Your task to perform on an android device: Add duracell triple a to the cart on costco Image 0: 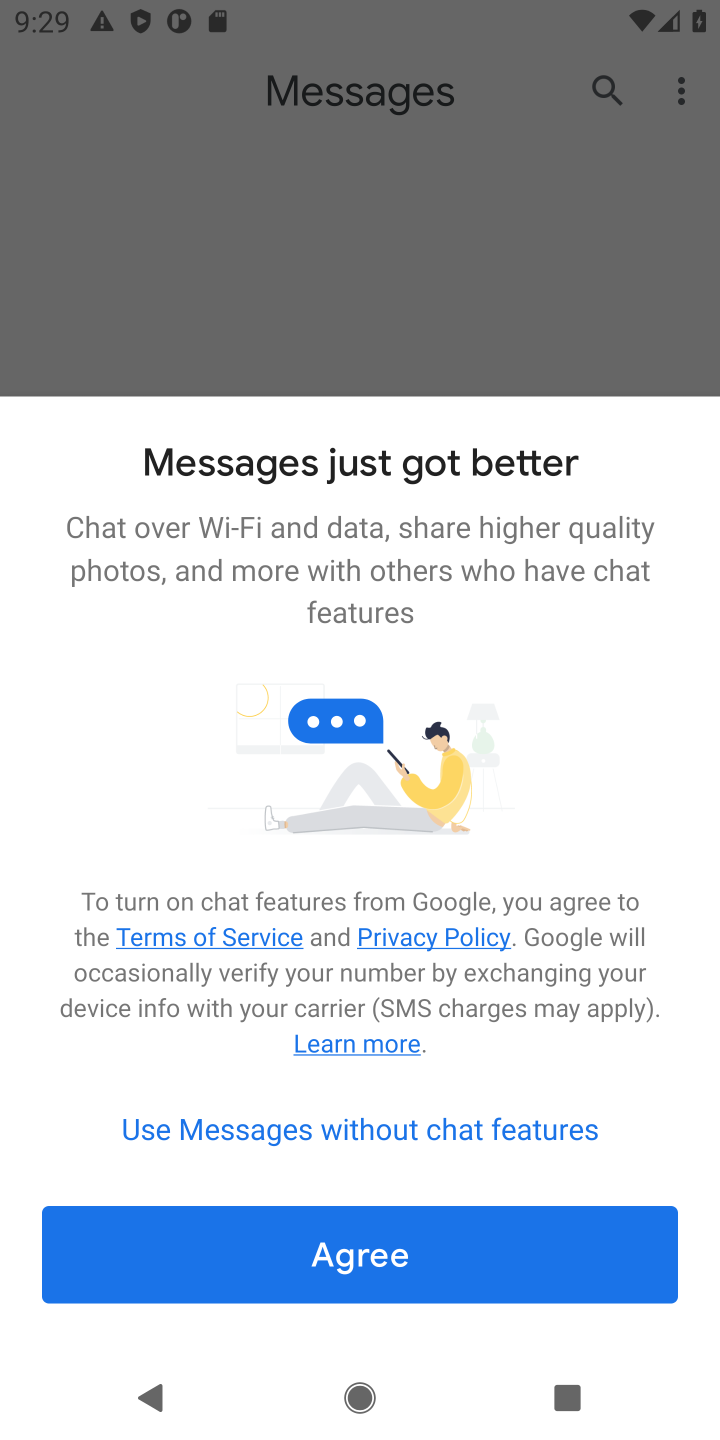
Step 0: press home button
Your task to perform on an android device: Add duracell triple a to the cart on costco Image 1: 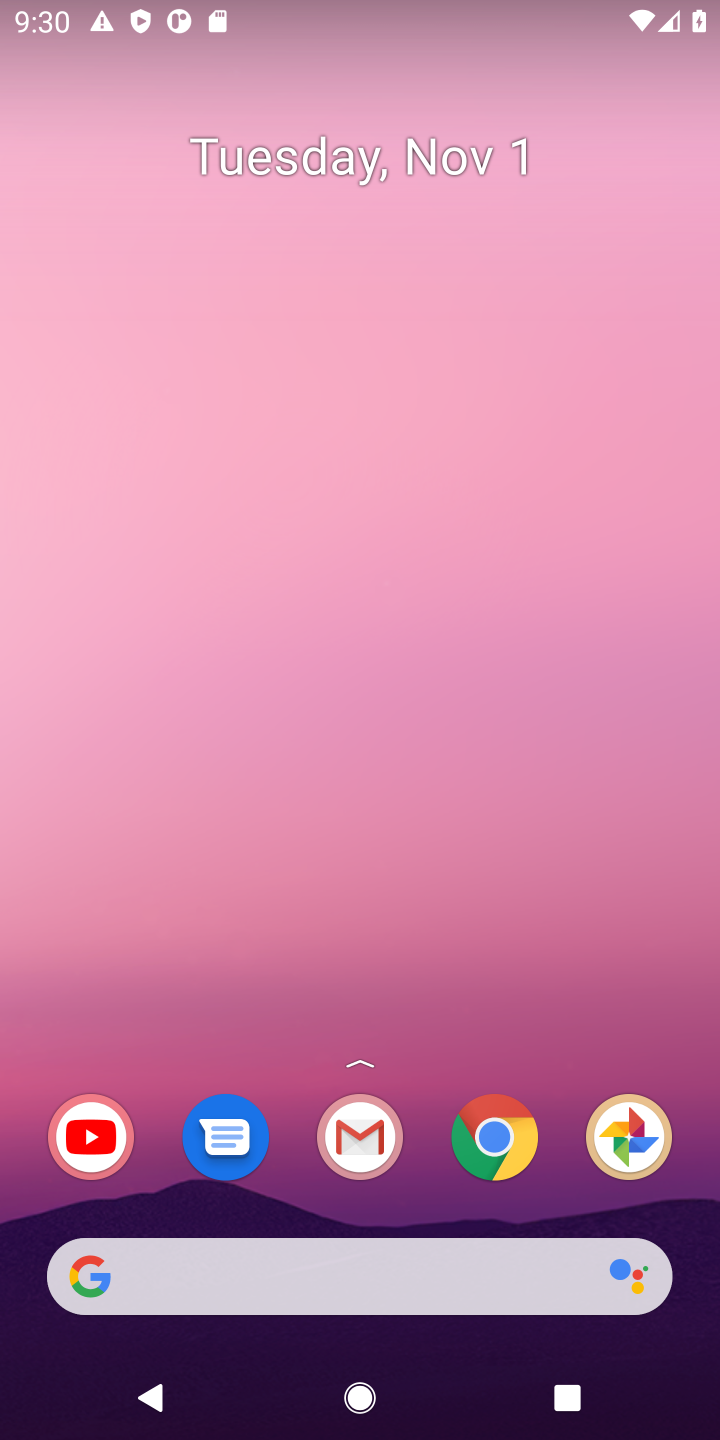
Step 1: click (519, 1143)
Your task to perform on an android device: Add duracell triple a to the cart on costco Image 2: 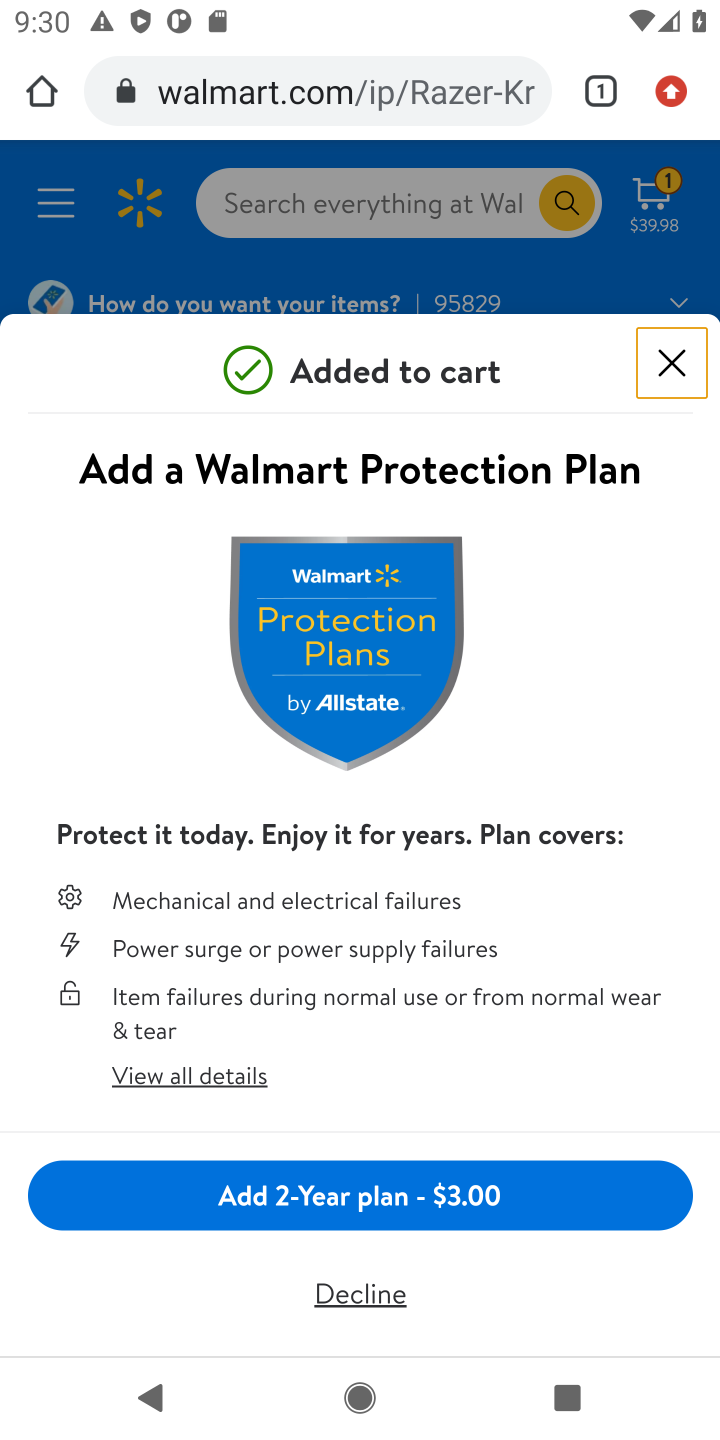
Step 2: click (429, 69)
Your task to perform on an android device: Add duracell triple a to the cart on costco Image 3: 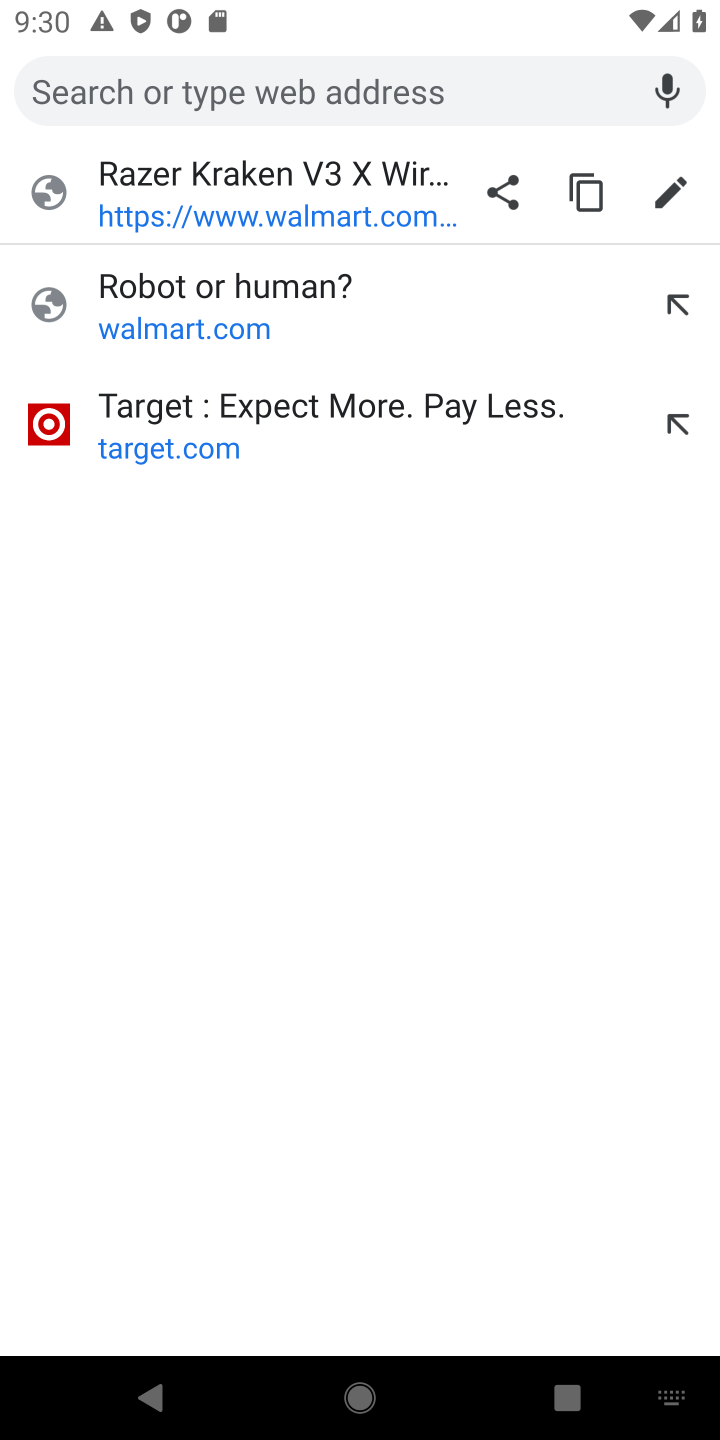
Step 3: type "costco"
Your task to perform on an android device: Add duracell triple a to the cart on costco Image 4: 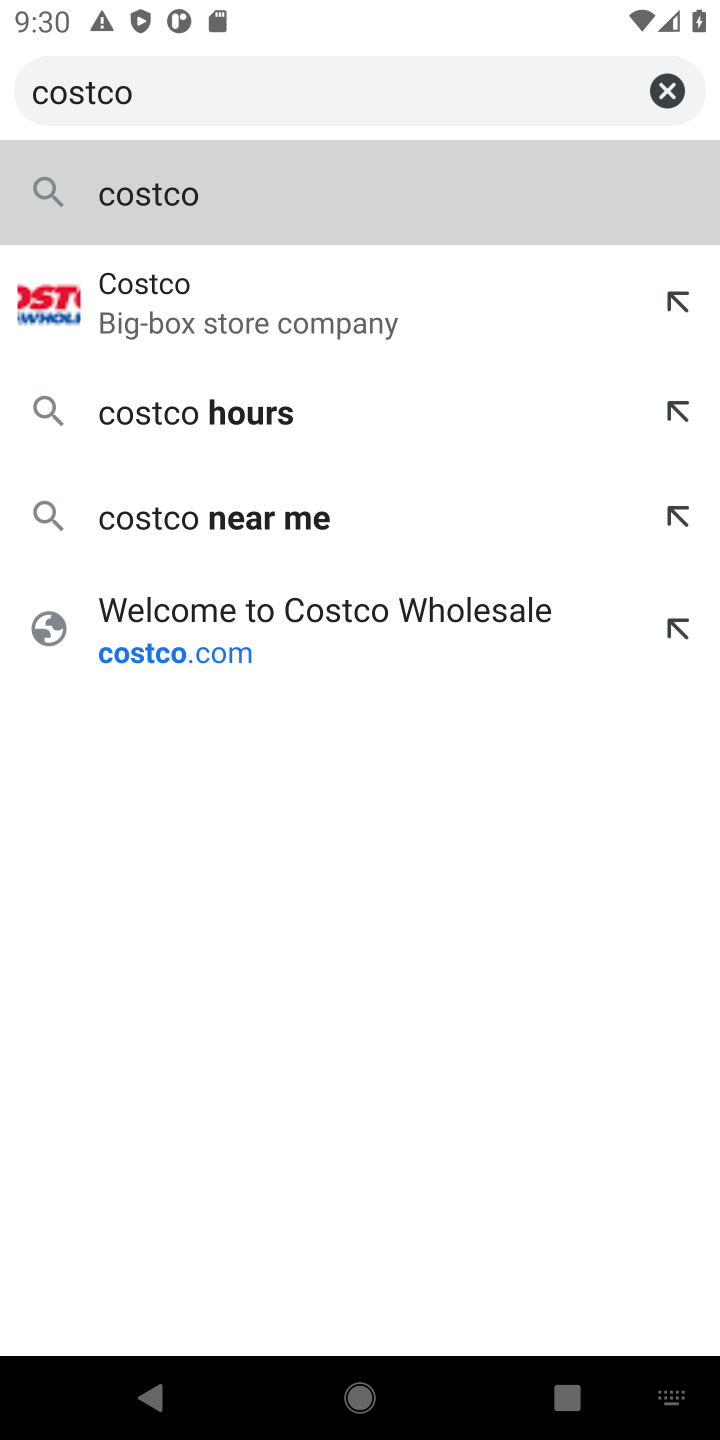
Step 4: click (203, 306)
Your task to perform on an android device: Add duracell triple a to the cart on costco Image 5: 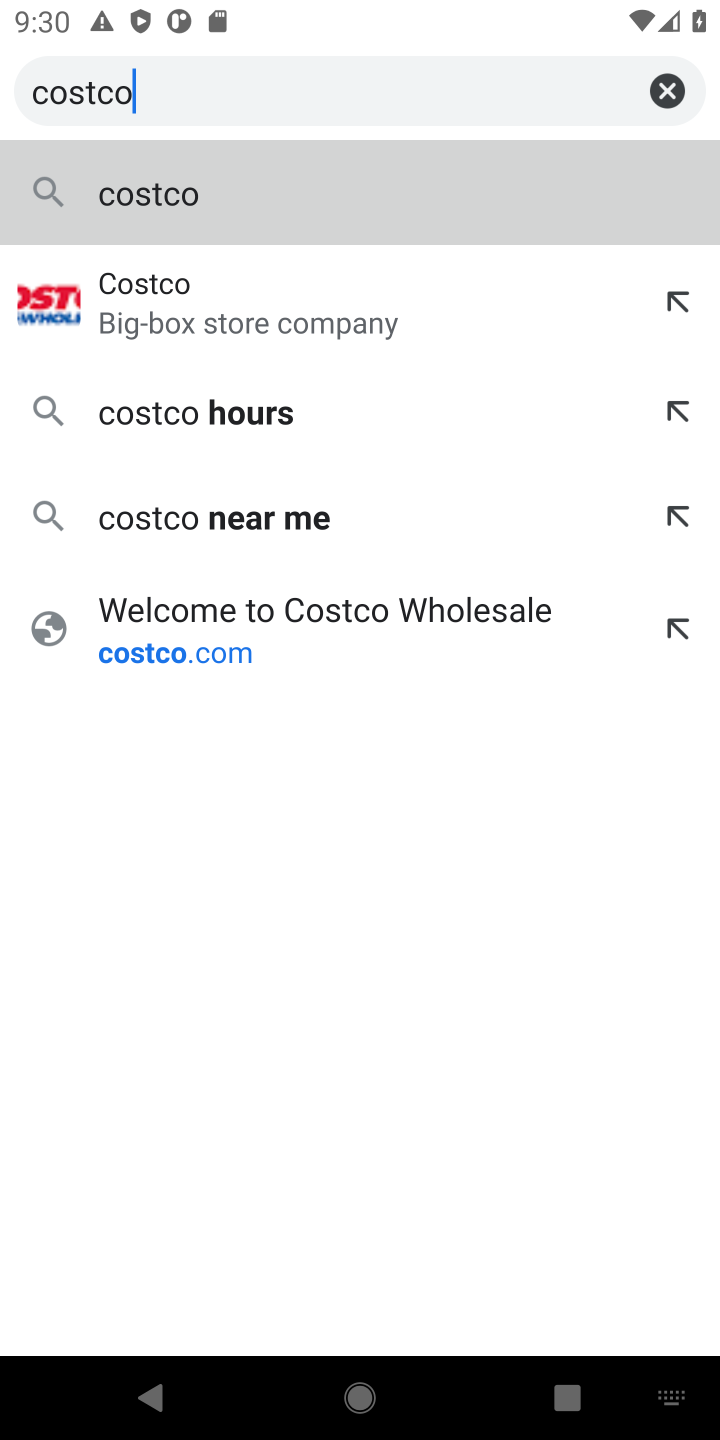
Step 5: click (146, 301)
Your task to perform on an android device: Add duracell triple a to the cart on costco Image 6: 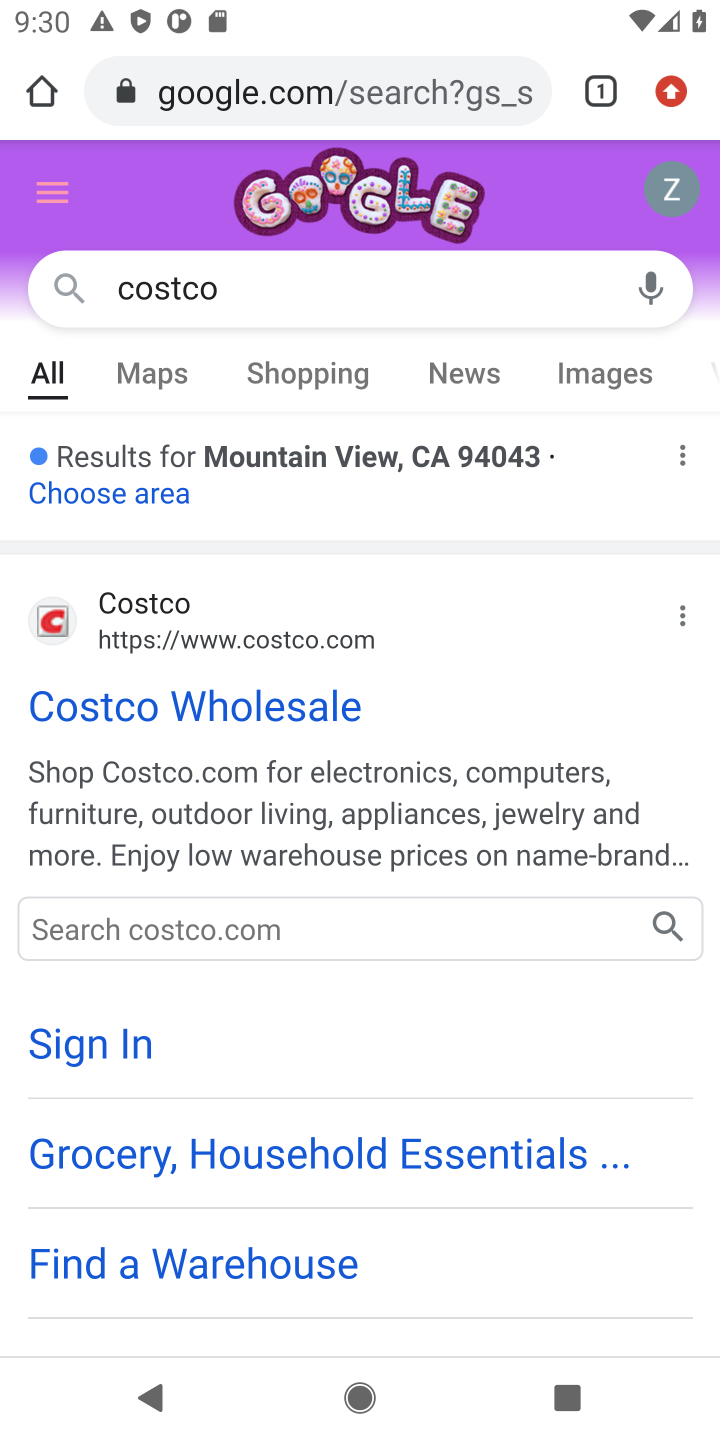
Step 6: click (143, 640)
Your task to perform on an android device: Add duracell triple a to the cart on costco Image 7: 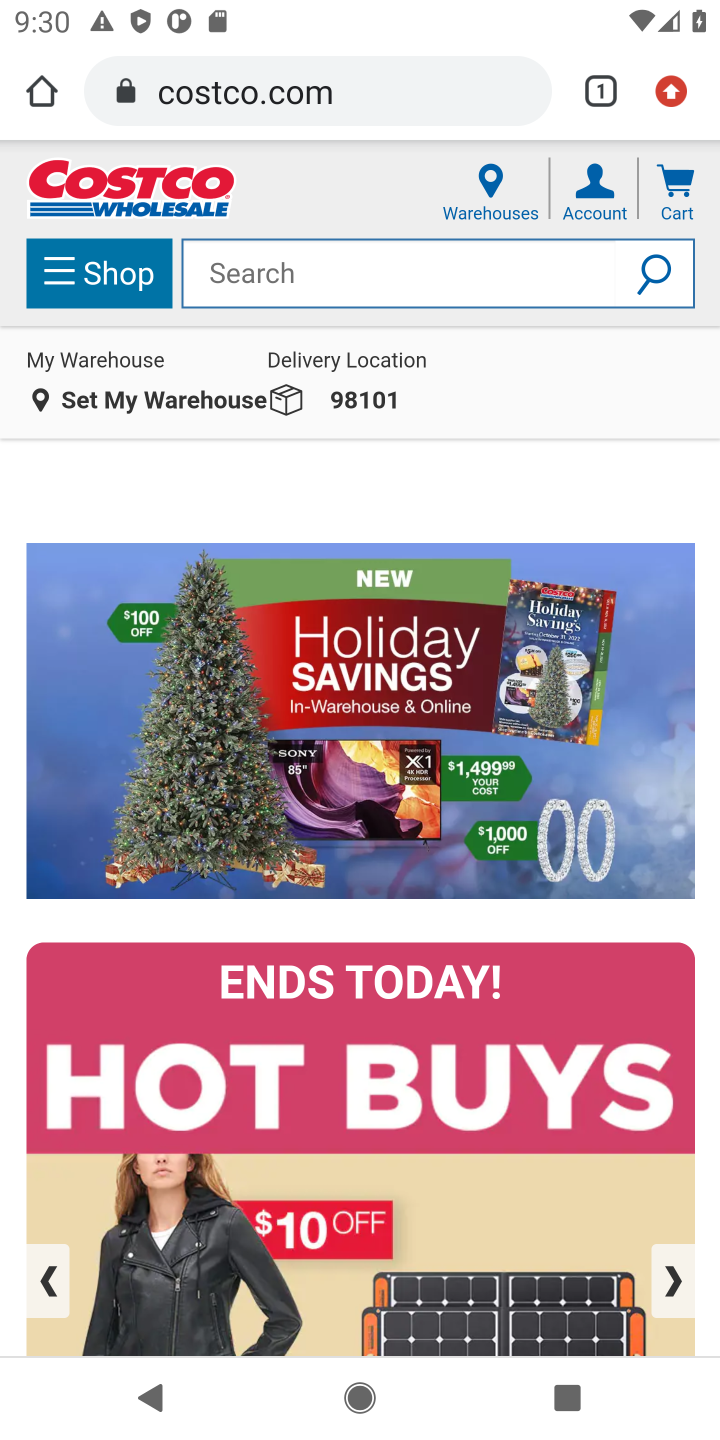
Step 7: click (447, 269)
Your task to perform on an android device: Add duracell triple a to the cart on costco Image 8: 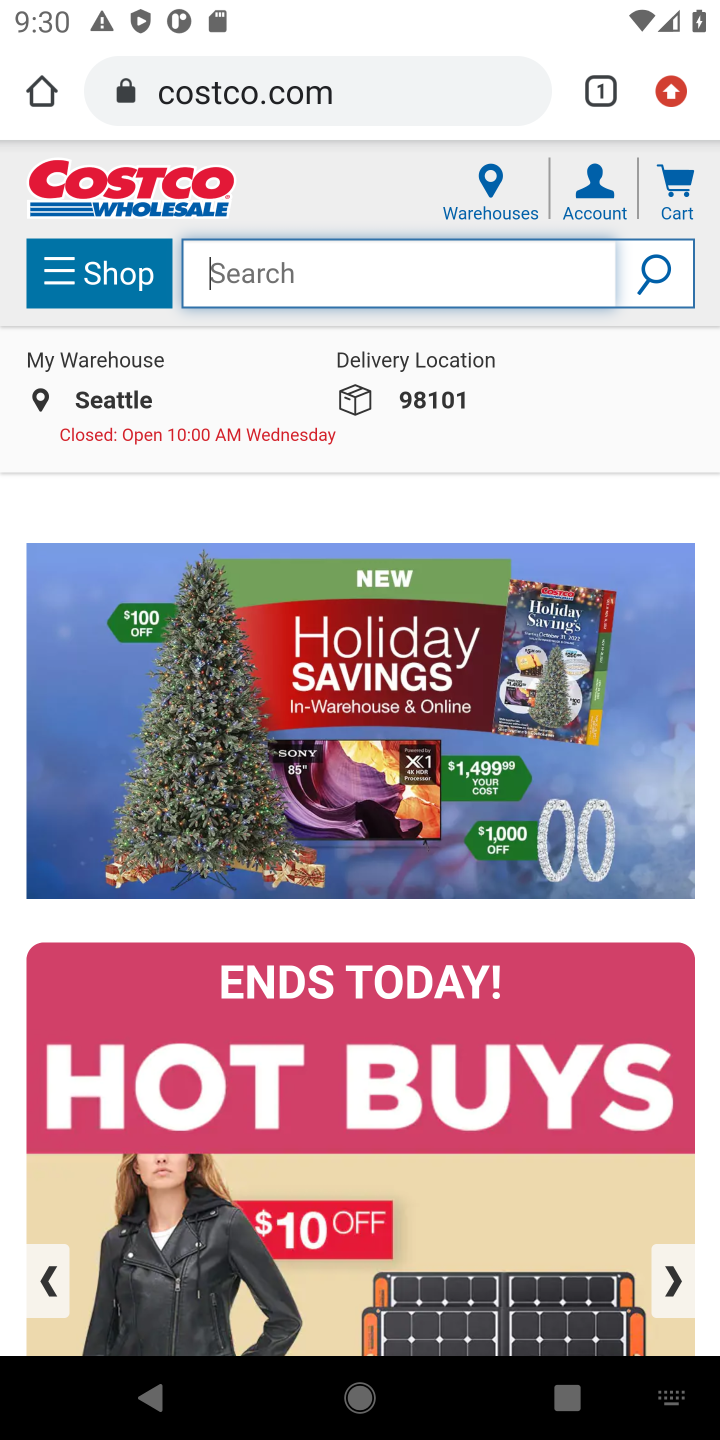
Step 8: type "duracell triple a"
Your task to perform on an android device: Add duracell triple a to the cart on costco Image 9: 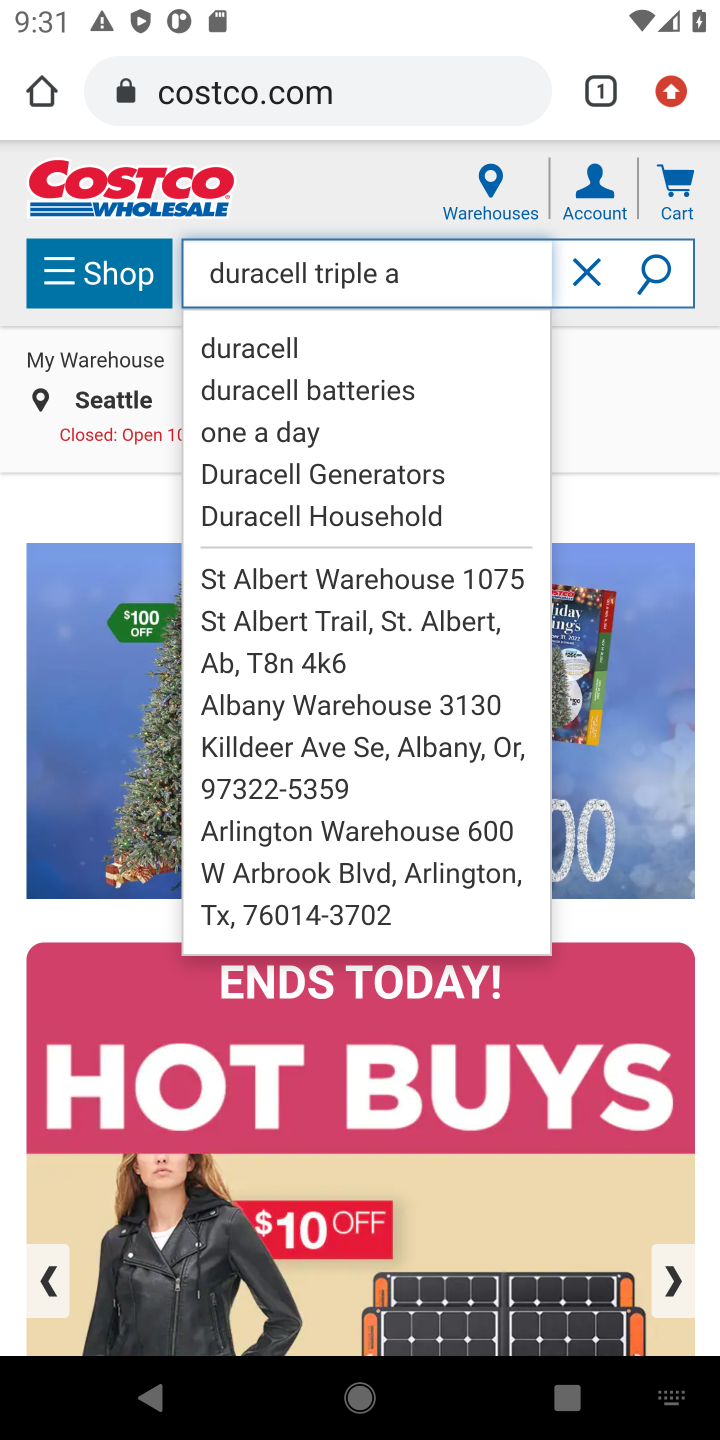
Step 9: click (610, 347)
Your task to perform on an android device: Add duracell triple a to the cart on costco Image 10: 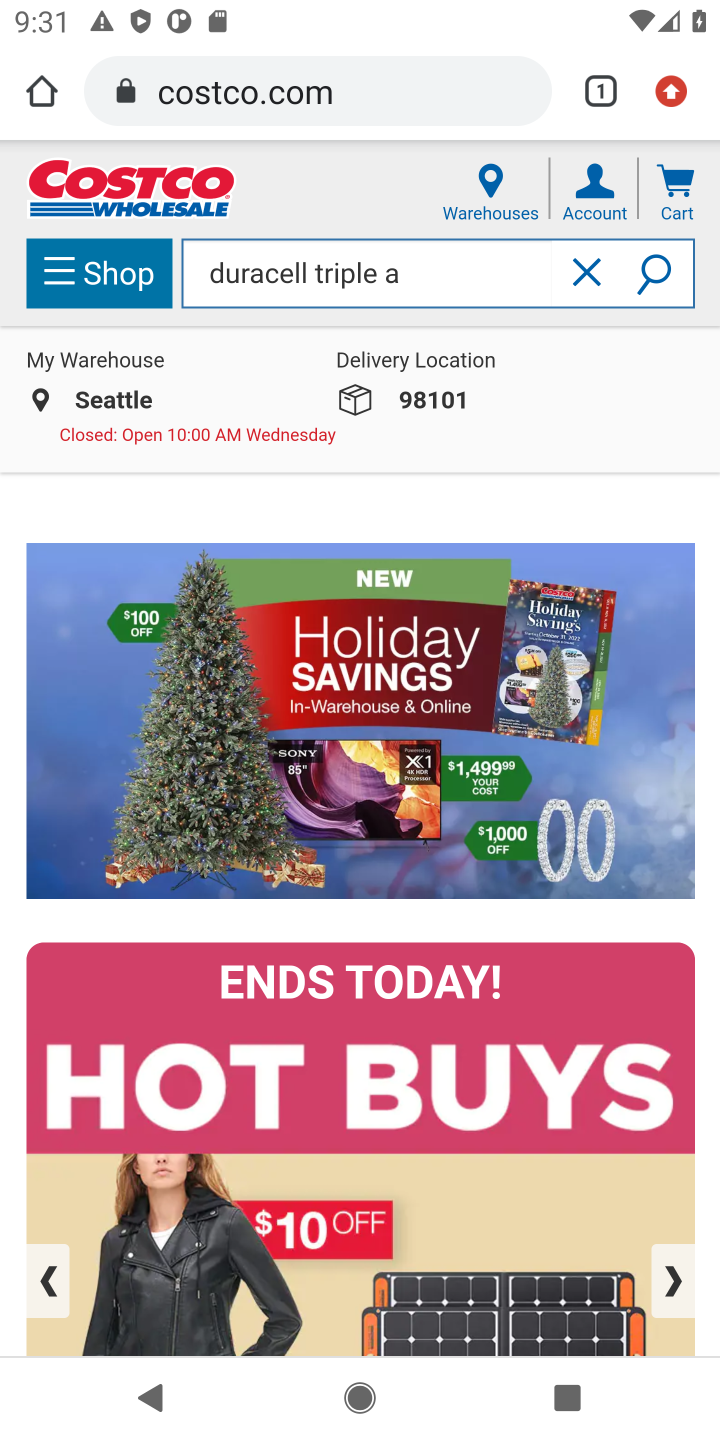
Step 10: click (445, 273)
Your task to perform on an android device: Add duracell triple a to the cart on costco Image 11: 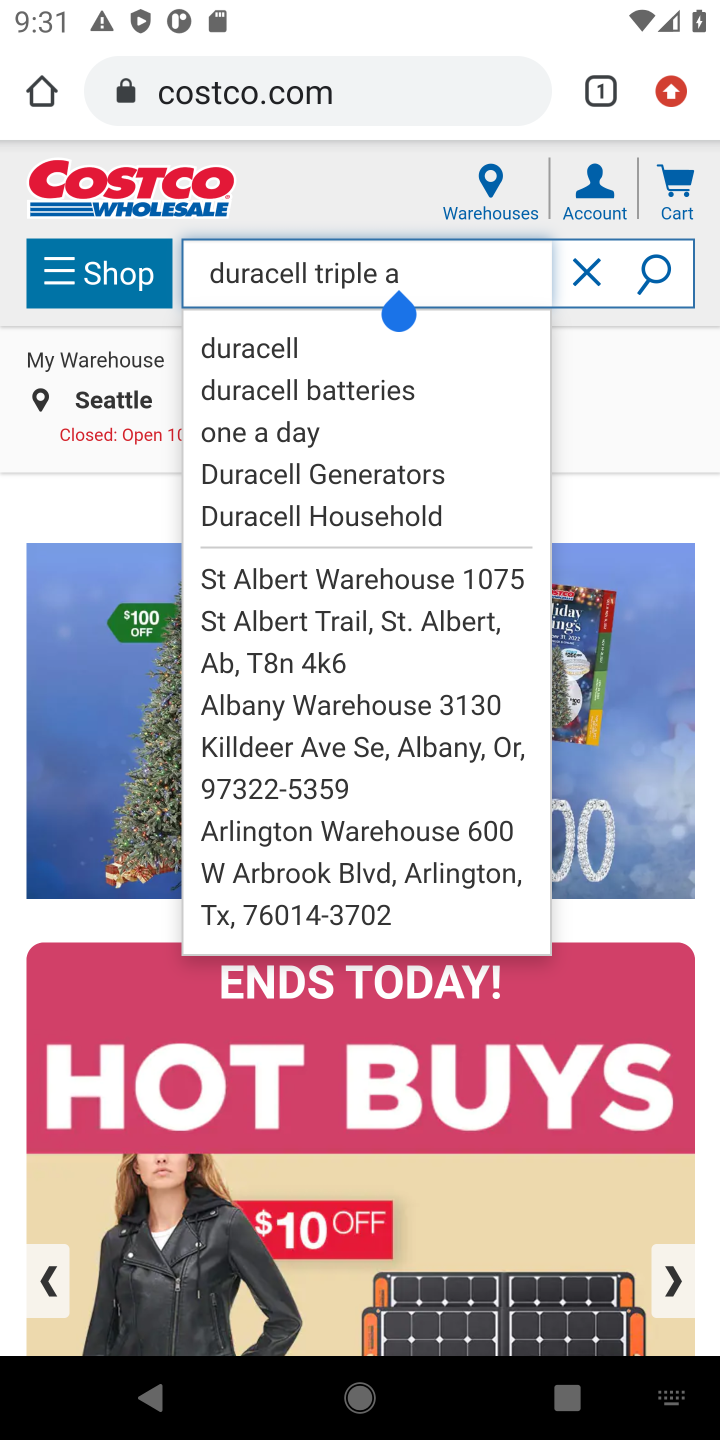
Step 11: click (330, 382)
Your task to perform on an android device: Add duracell triple a to the cart on costco Image 12: 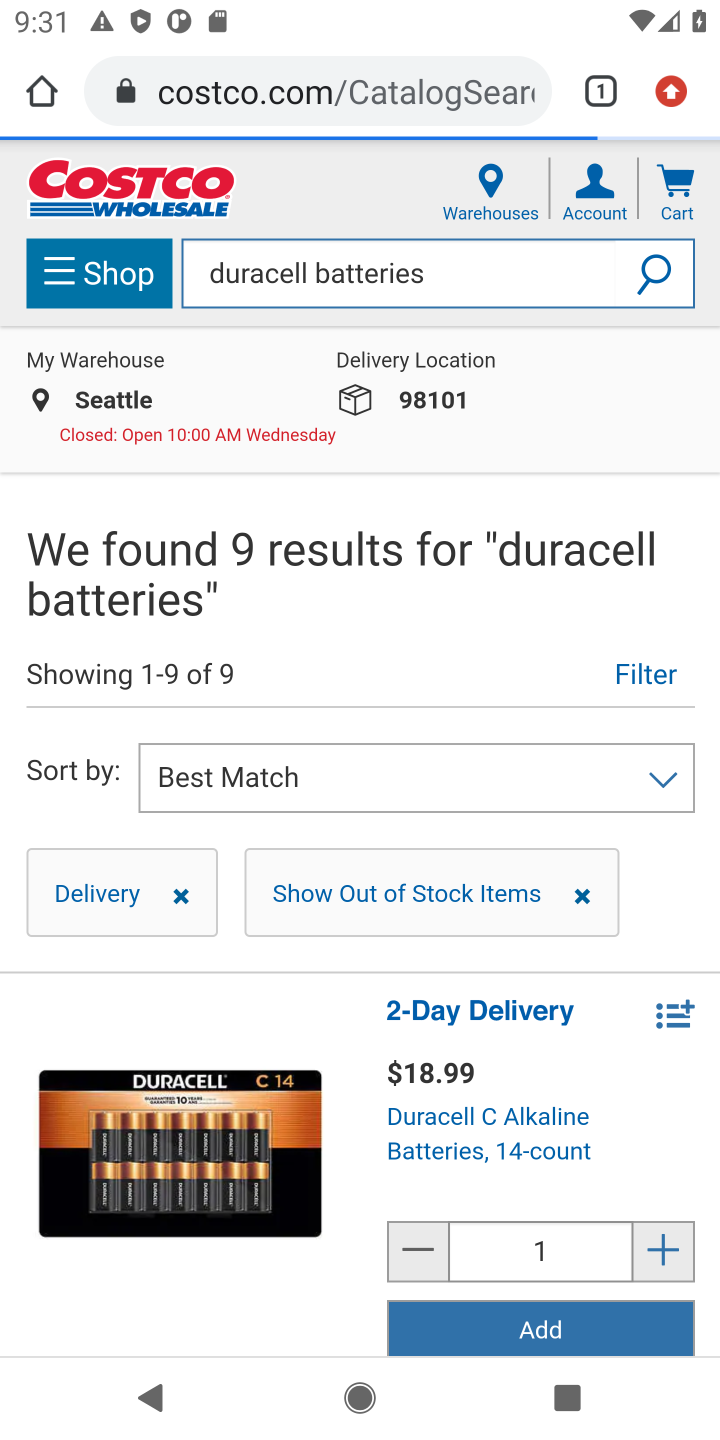
Step 12: drag from (442, 779) to (427, 487)
Your task to perform on an android device: Add duracell triple a to the cart on costco Image 13: 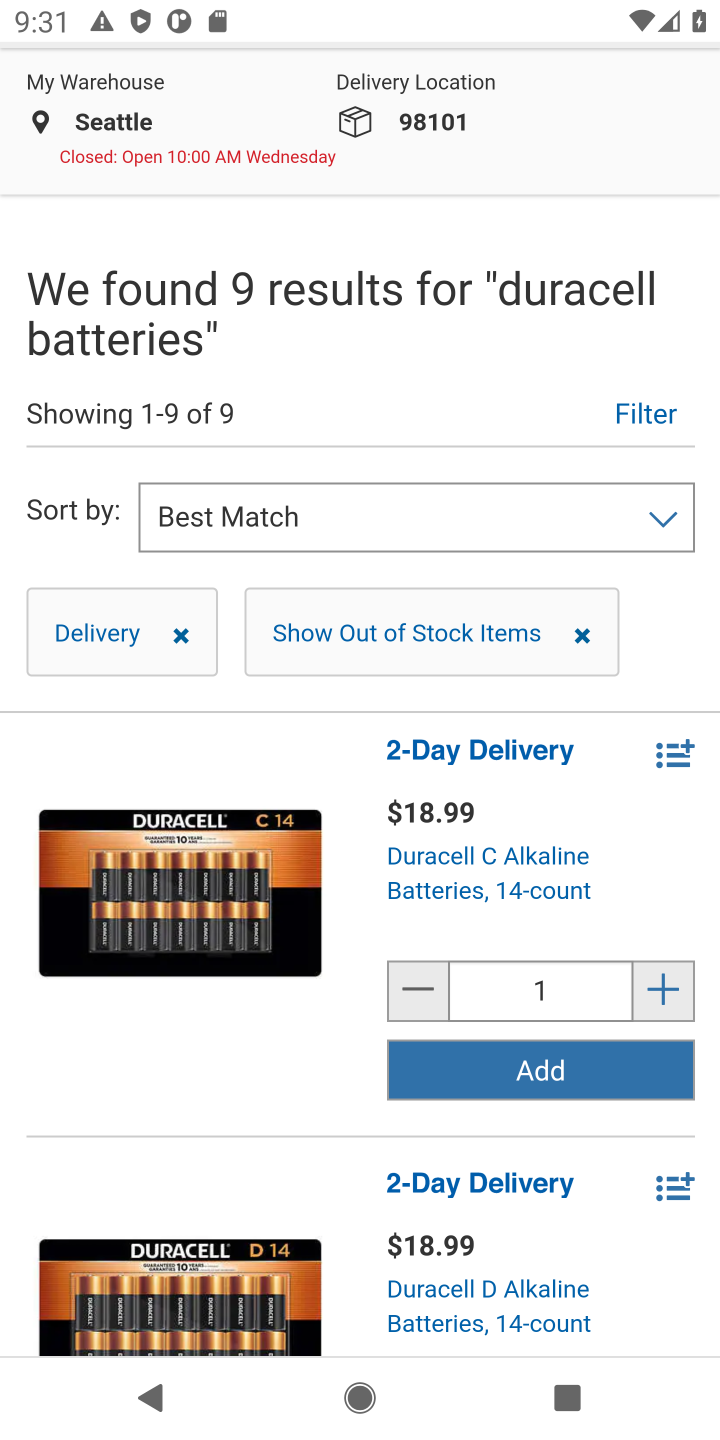
Step 13: drag from (518, 1178) to (488, 542)
Your task to perform on an android device: Add duracell triple a to the cart on costco Image 14: 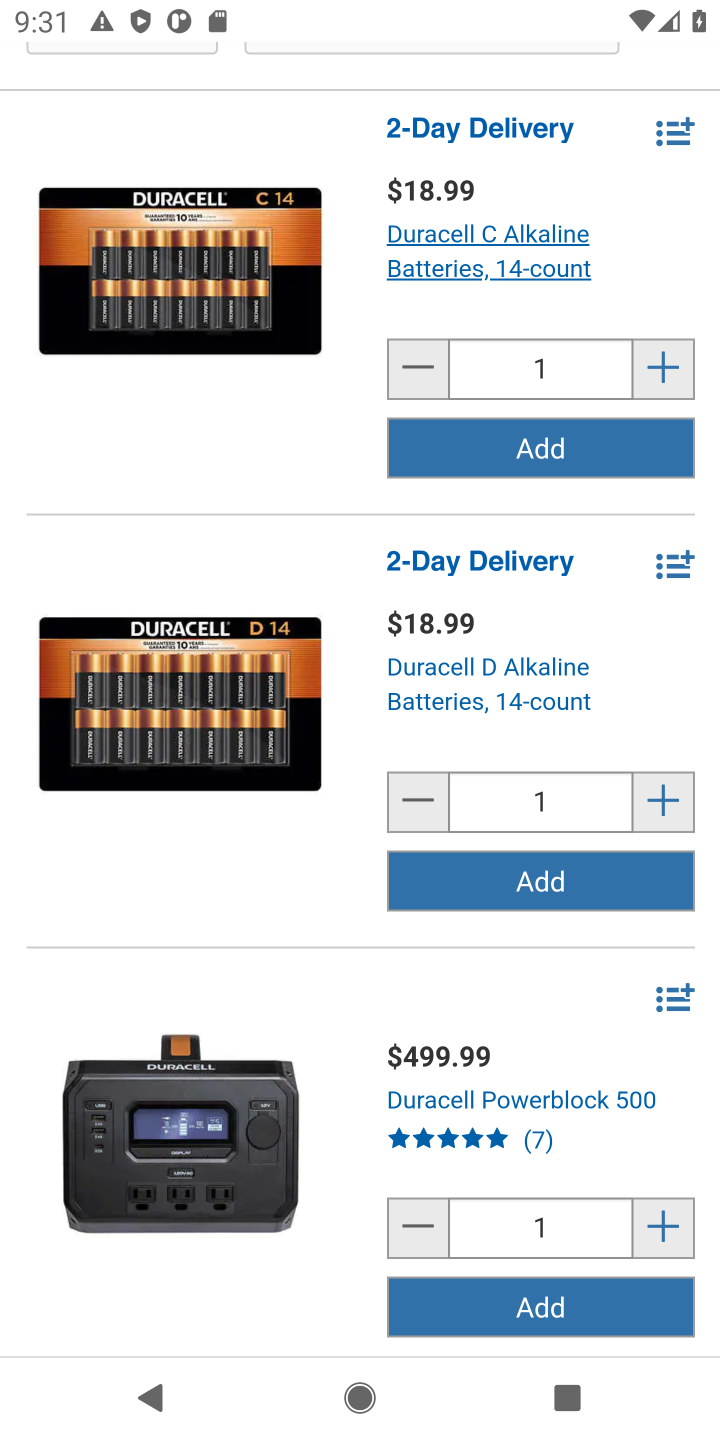
Step 14: drag from (288, 729) to (356, 490)
Your task to perform on an android device: Add duracell triple a to the cart on costco Image 15: 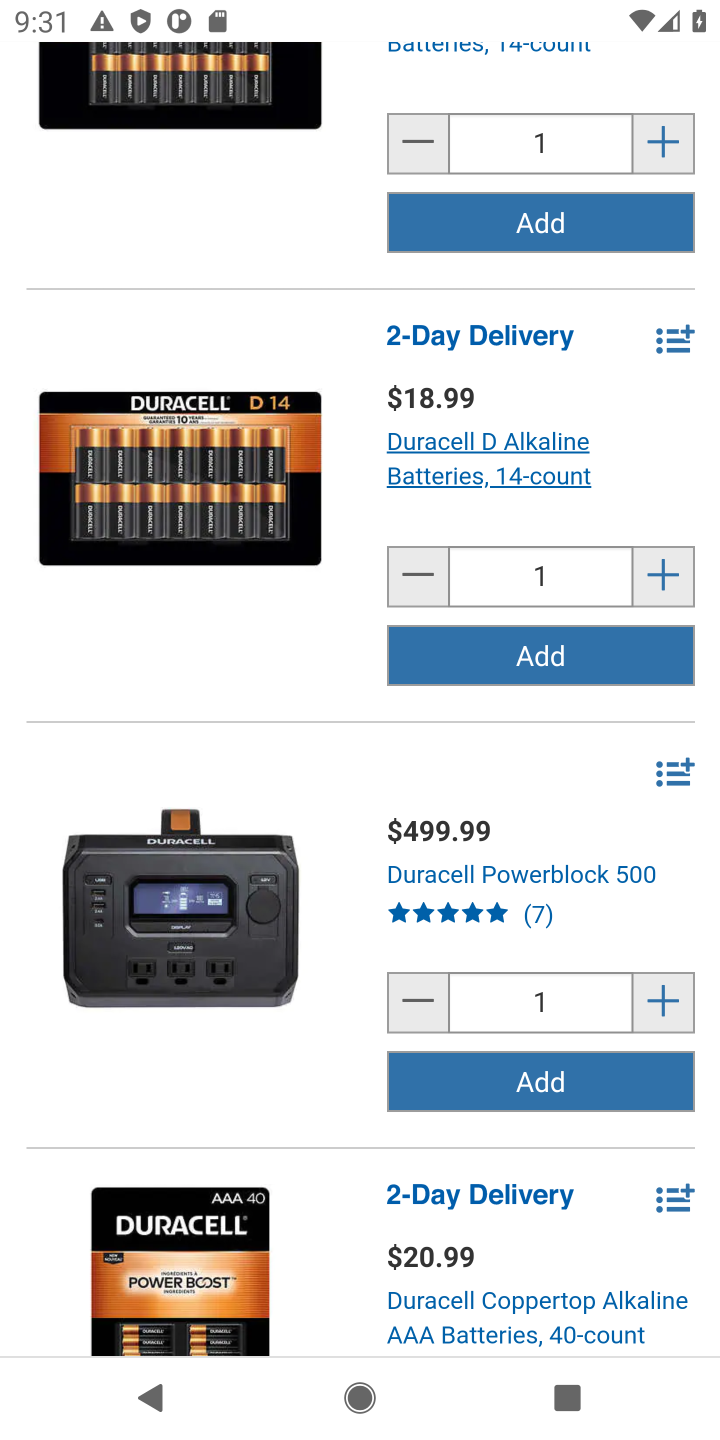
Step 15: drag from (277, 1179) to (317, 578)
Your task to perform on an android device: Add duracell triple a to the cart on costco Image 16: 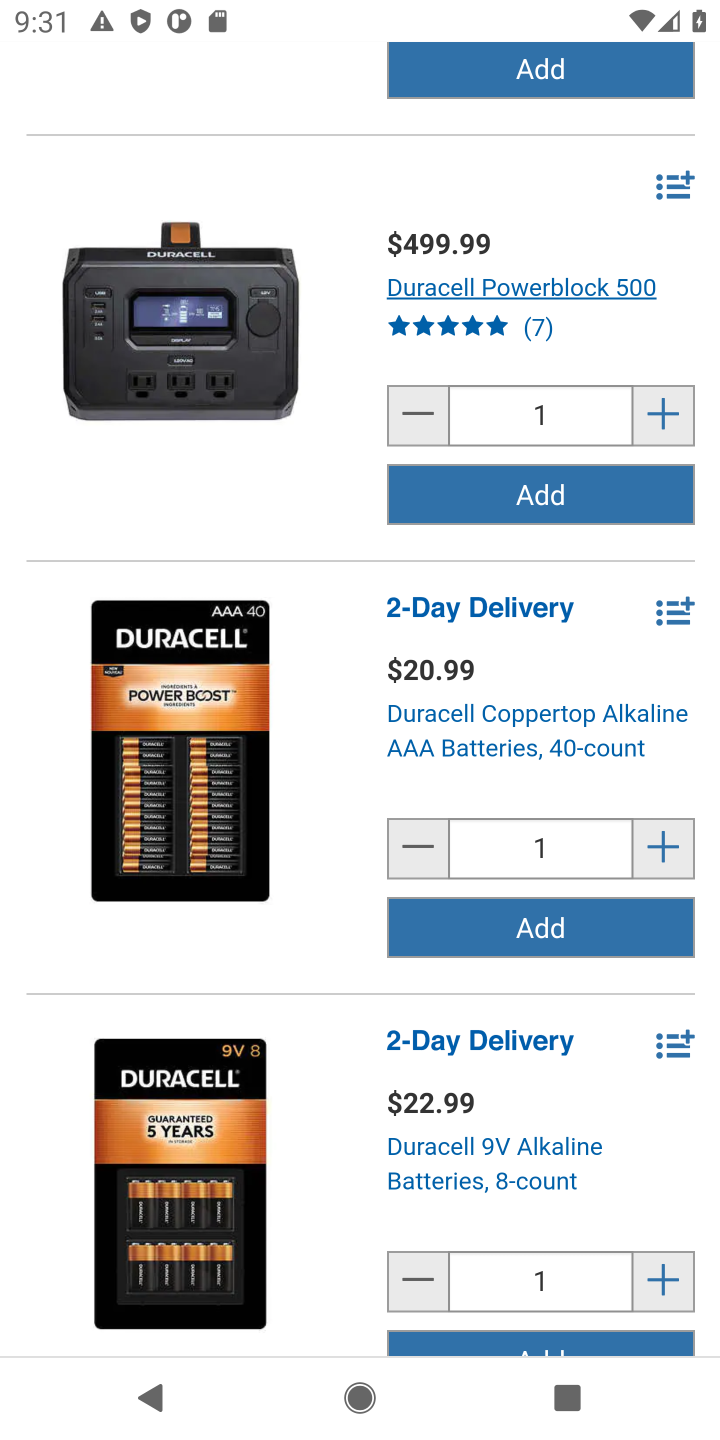
Step 16: click (161, 746)
Your task to perform on an android device: Add duracell triple a to the cart on costco Image 17: 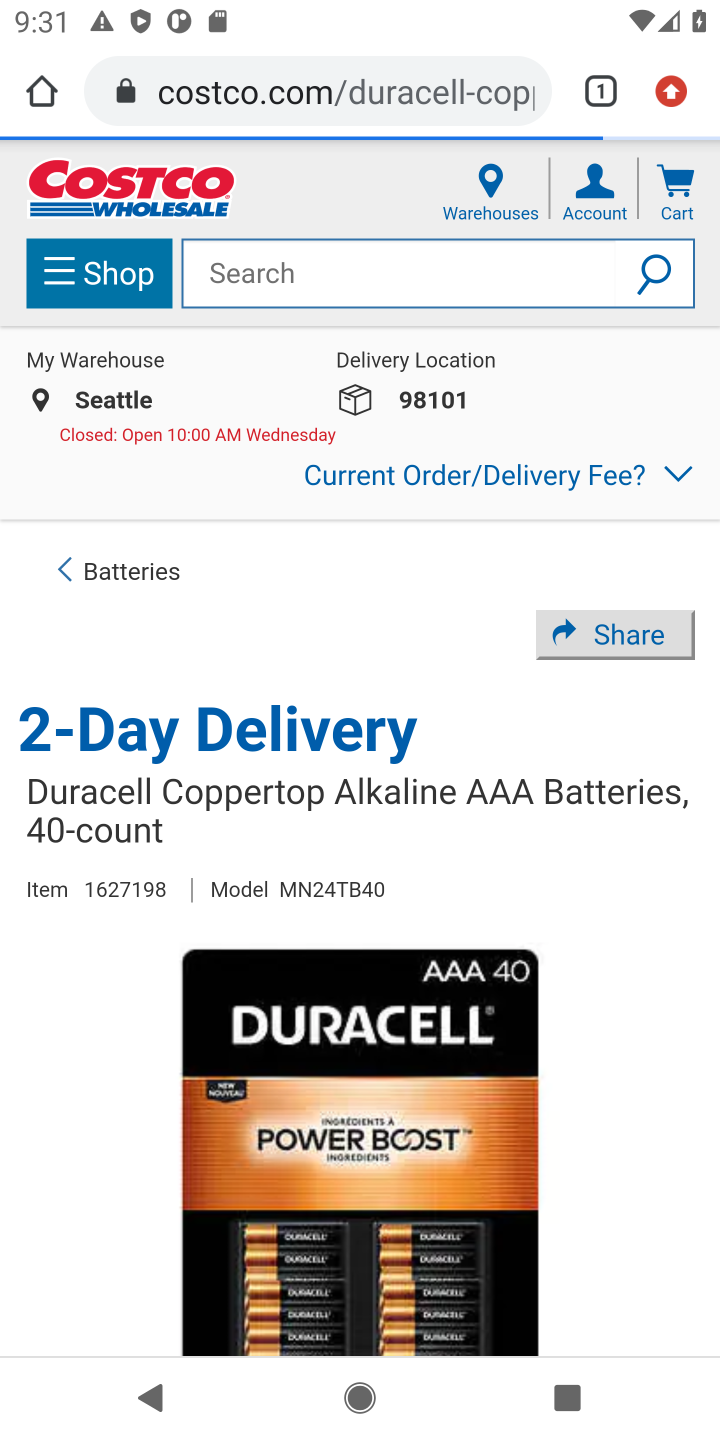
Step 17: drag from (573, 887) to (528, 283)
Your task to perform on an android device: Add duracell triple a to the cart on costco Image 18: 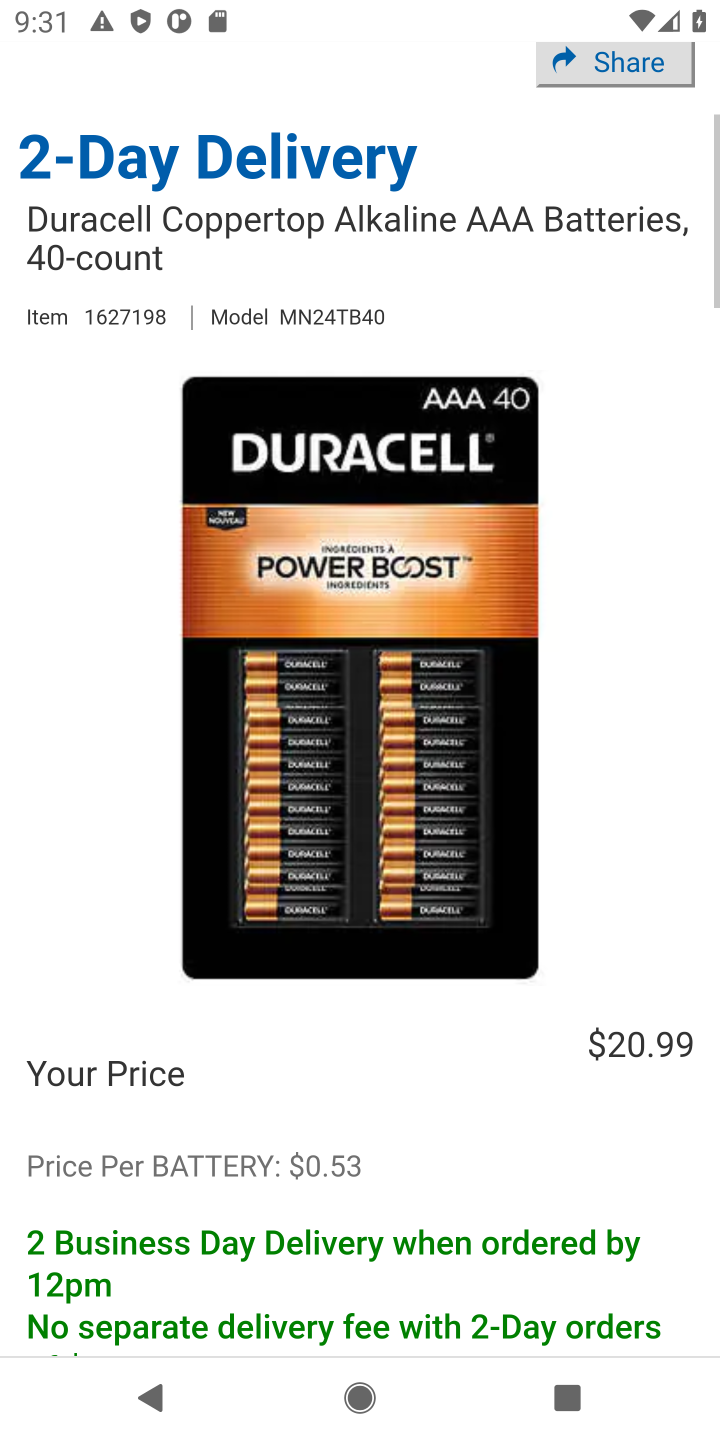
Step 18: drag from (499, 1034) to (477, 222)
Your task to perform on an android device: Add duracell triple a to the cart on costco Image 19: 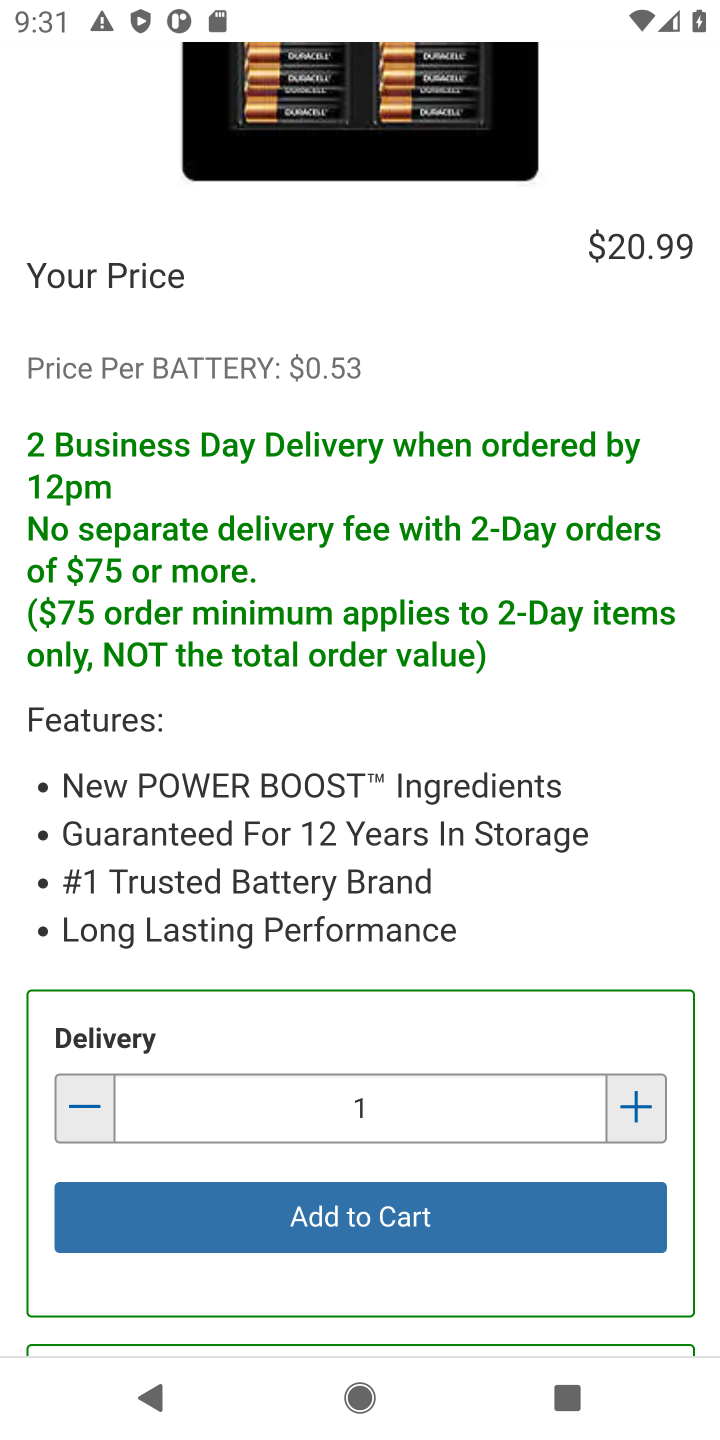
Step 19: click (488, 1225)
Your task to perform on an android device: Add duracell triple a to the cart on costco Image 20: 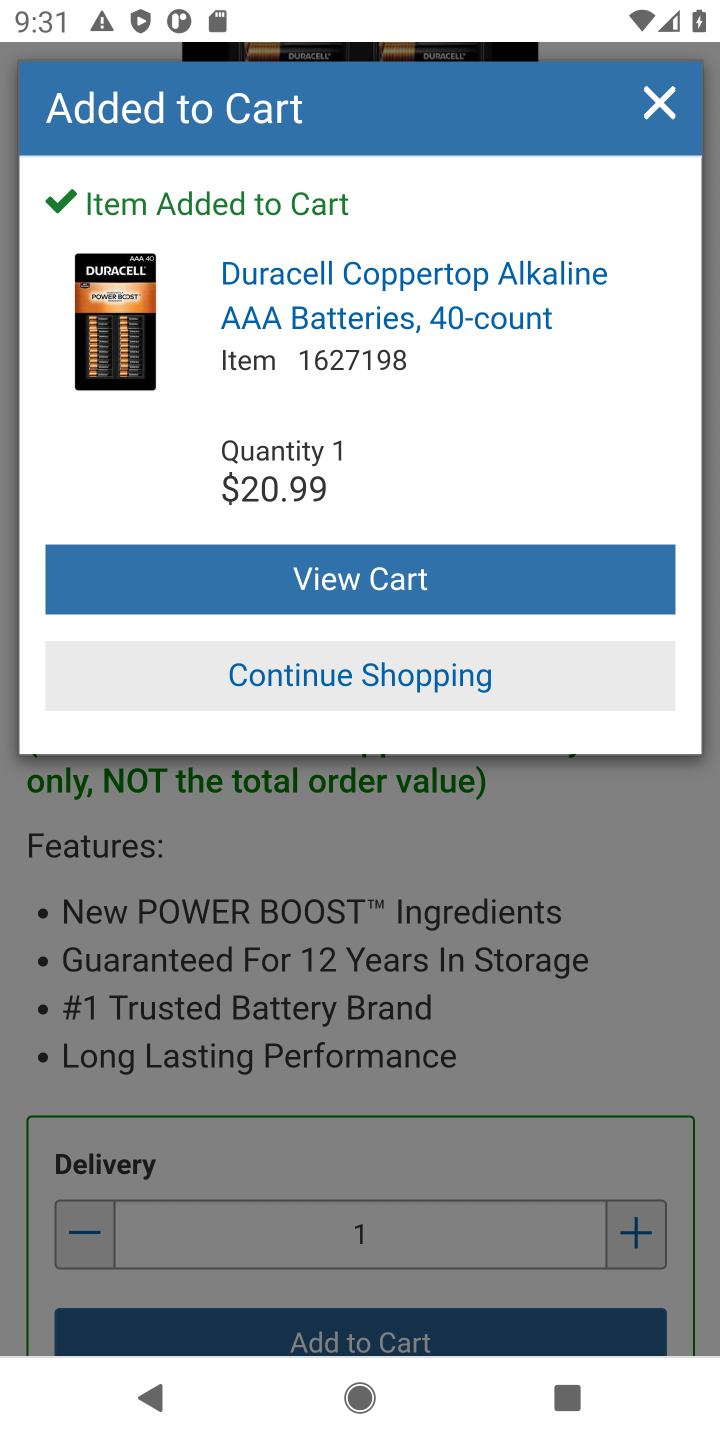
Step 20: click (505, 575)
Your task to perform on an android device: Add duracell triple a to the cart on costco Image 21: 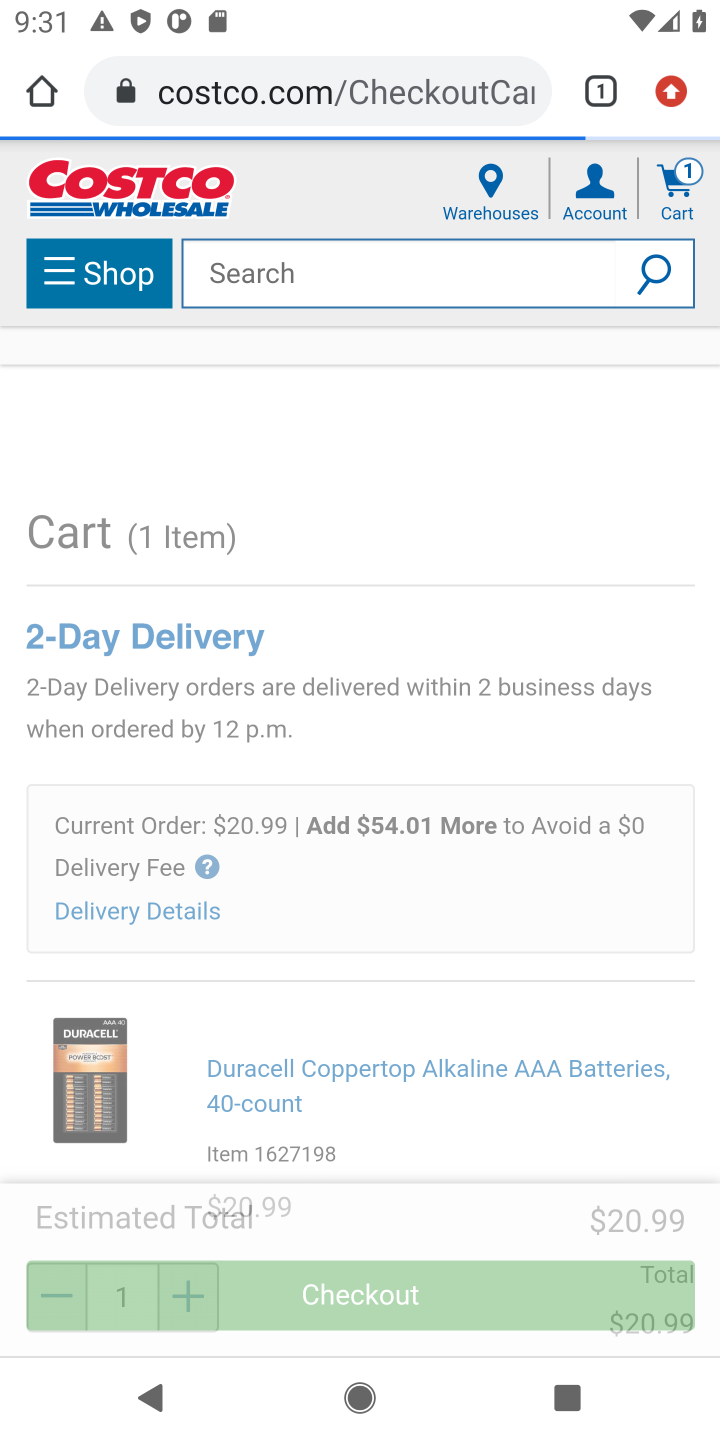
Step 21: task complete